Your task to perform on an android device: check battery use Image 0: 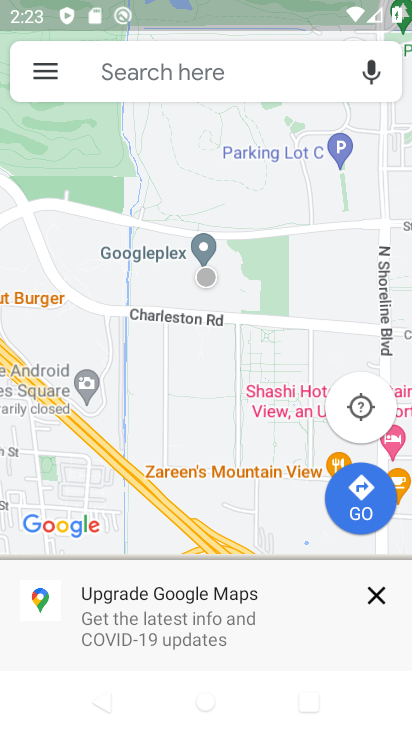
Step 0: press home button
Your task to perform on an android device: check battery use Image 1: 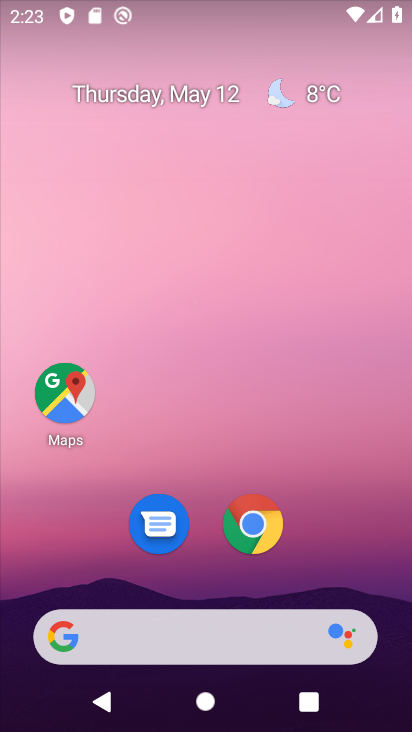
Step 1: drag from (193, 405) to (214, 54)
Your task to perform on an android device: check battery use Image 2: 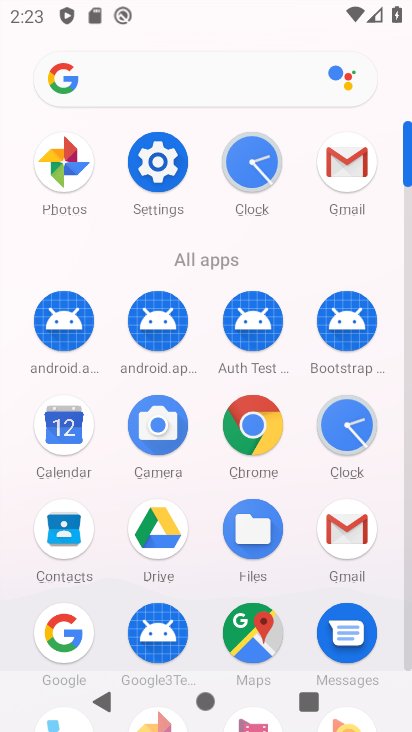
Step 2: click (158, 154)
Your task to perform on an android device: check battery use Image 3: 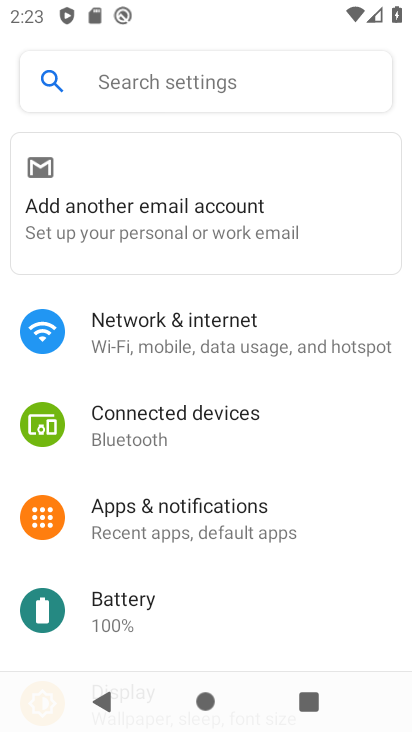
Step 3: click (157, 608)
Your task to perform on an android device: check battery use Image 4: 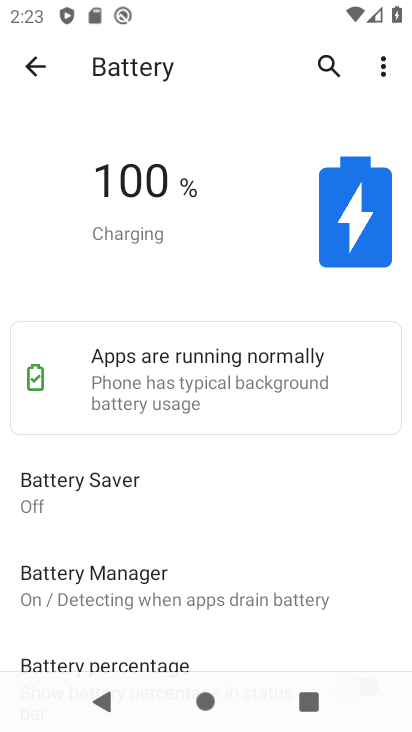
Step 4: click (384, 61)
Your task to perform on an android device: check battery use Image 5: 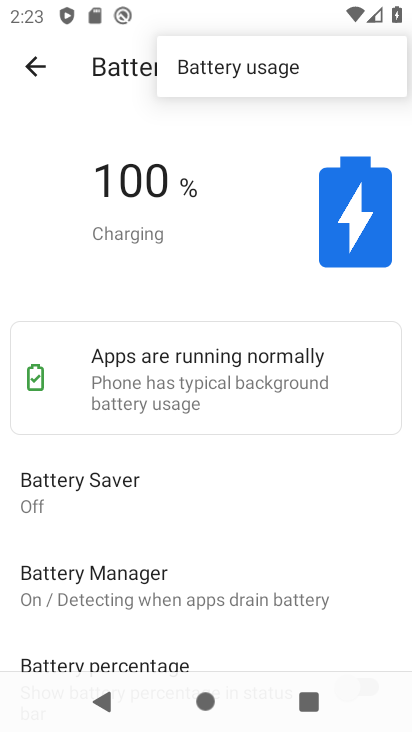
Step 5: click (320, 62)
Your task to perform on an android device: check battery use Image 6: 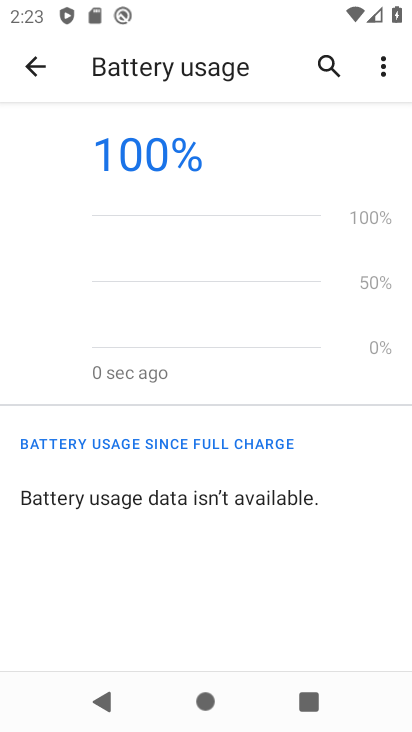
Step 6: task complete